Your task to perform on an android device: delete a single message in the gmail app Image 0: 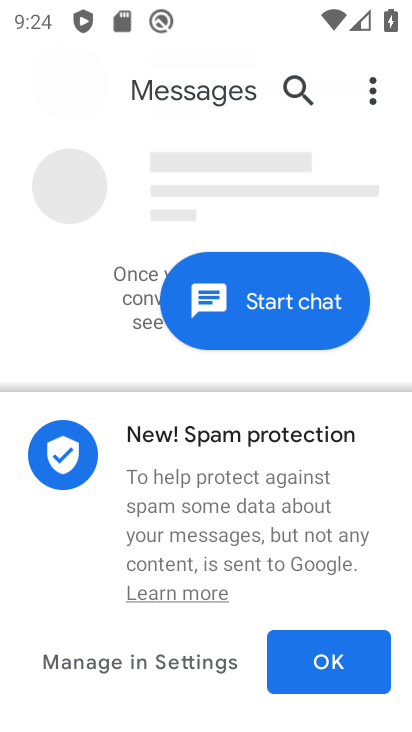
Step 0: press home button
Your task to perform on an android device: delete a single message in the gmail app Image 1: 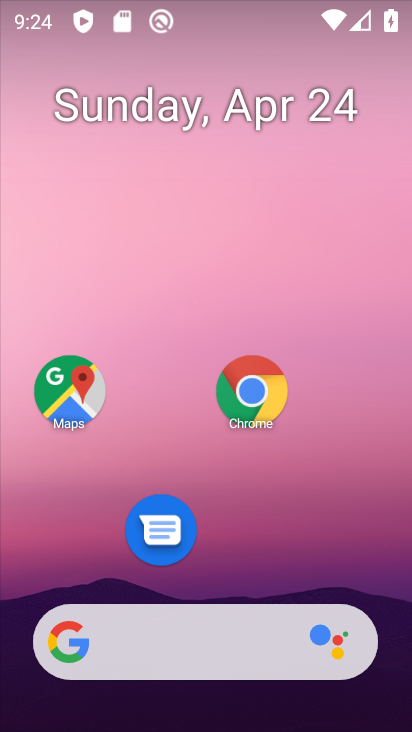
Step 1: drag from (257, 579) to (229, 118)
Your task to perform on an android device: delete a single message in the gmail app Image 2: 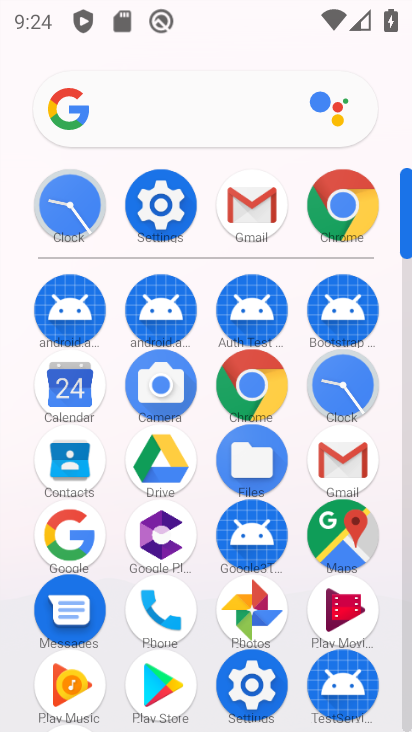
Step 2: click (254, 215)
Your task to perform on an android device: delete a single message in the gmail app Image 3: 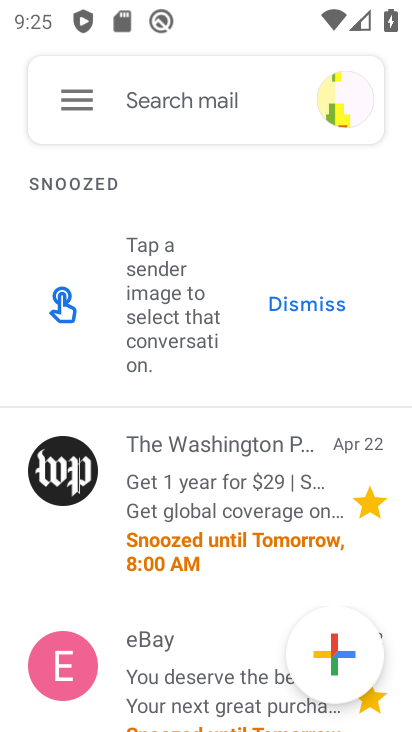
Step 3: click (56, 444)
Your task to perform on an android device: delete a single message in the gmail app Image 4: 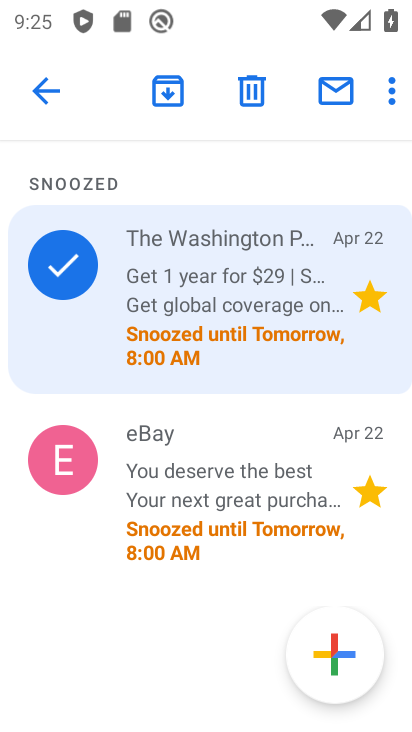
Step 4: click (248, 98)
Your task to perform on an android device: delete a single message in the gmail app Image 5: 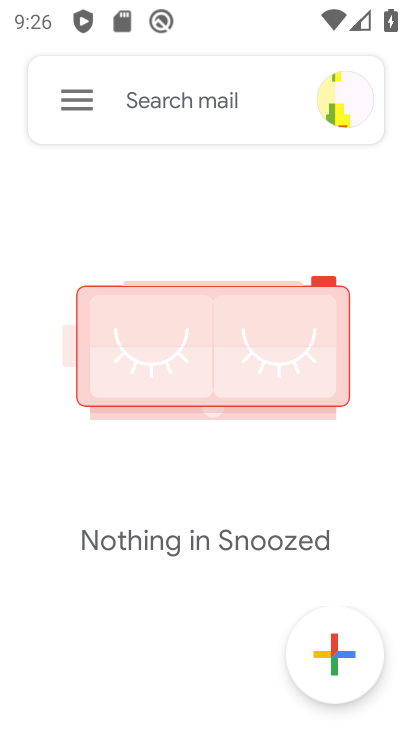
Step 5: task complete